Your task to perform on an android device: turn on showing notifications on the lock screen Image 0: 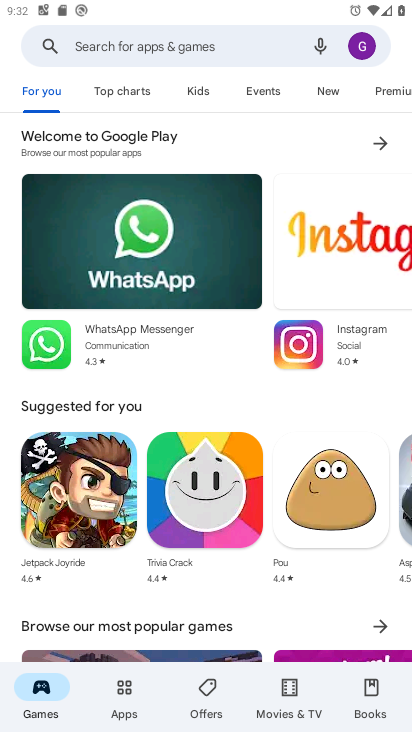
Step 0: press home button
Your task to perform on an android device: turn on showing notifications on the lock screen Image 1: 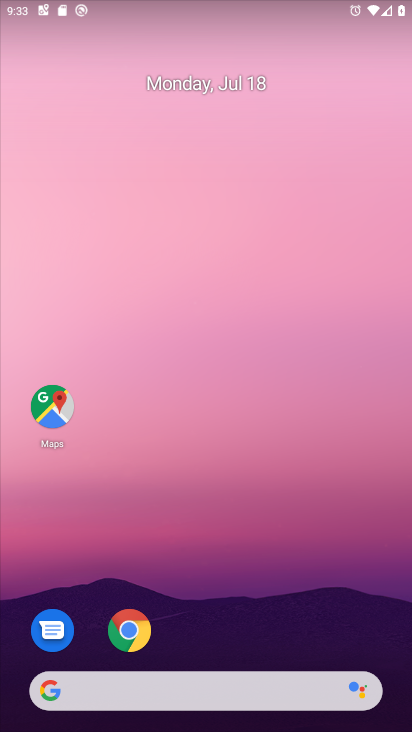
Step 1: drag from (206, 621) to (184, 241)
Your task to perform on an android device: turn on showing notifications on the lock screen Image 2: 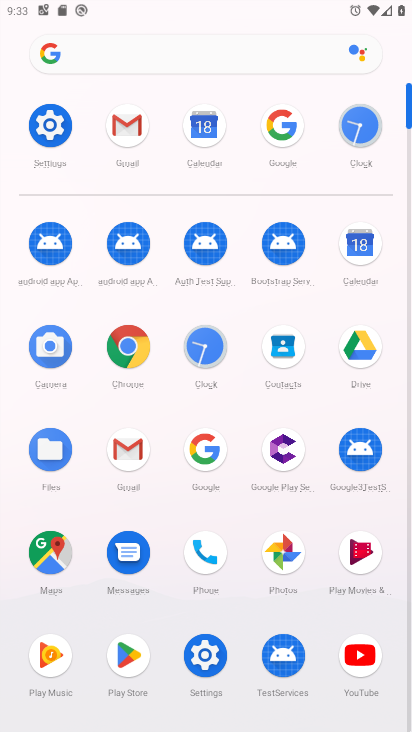
Step 2: click (51, 126)
Your task to perform on an android device: turn on showing notifications on the lock screen Image 3: 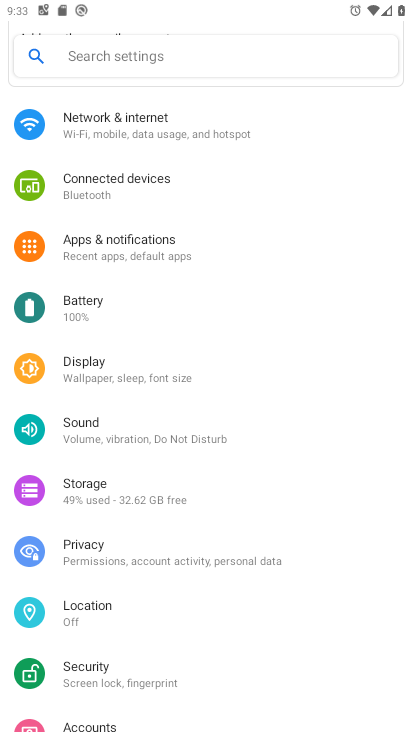
Step 3: click (143, 240)
Your task to perform on an android device: turn on showing notifications on the lock screen Image 4: 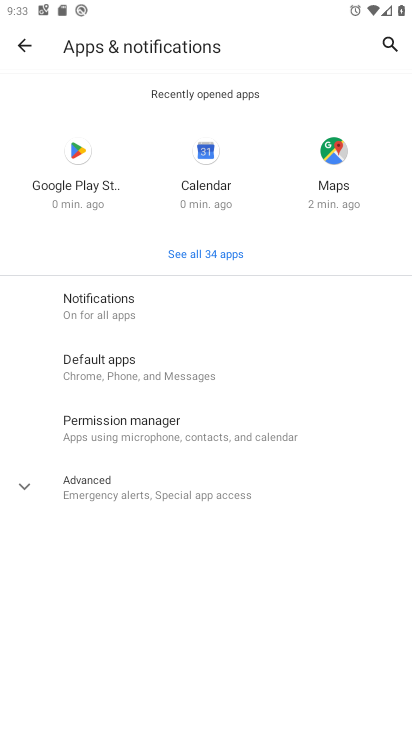
Step 4: click (147, 313)
Your task to perform on an android device: turn on showing notifications on the lock screen Image 5: 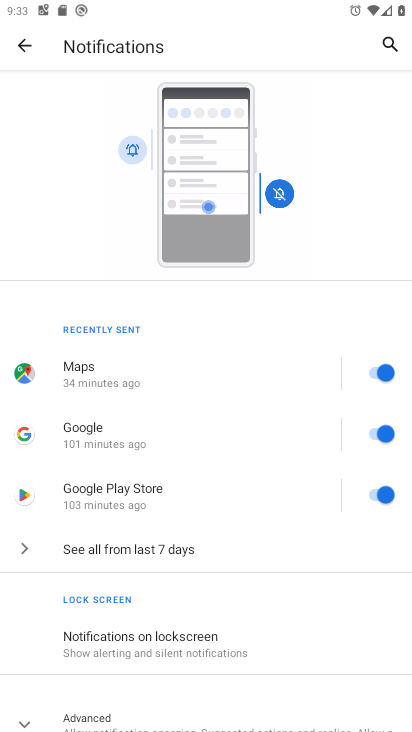
Step 5: click (197, 639)
Your task to perform on an android device: turn on showing notifications on the lock screen Image 6: 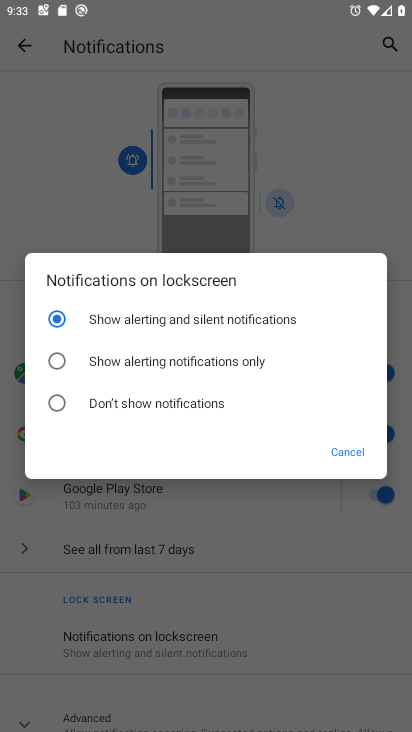
Step 6: task complete